Your task to perform on an android device: change the clock display to analog Image 0: 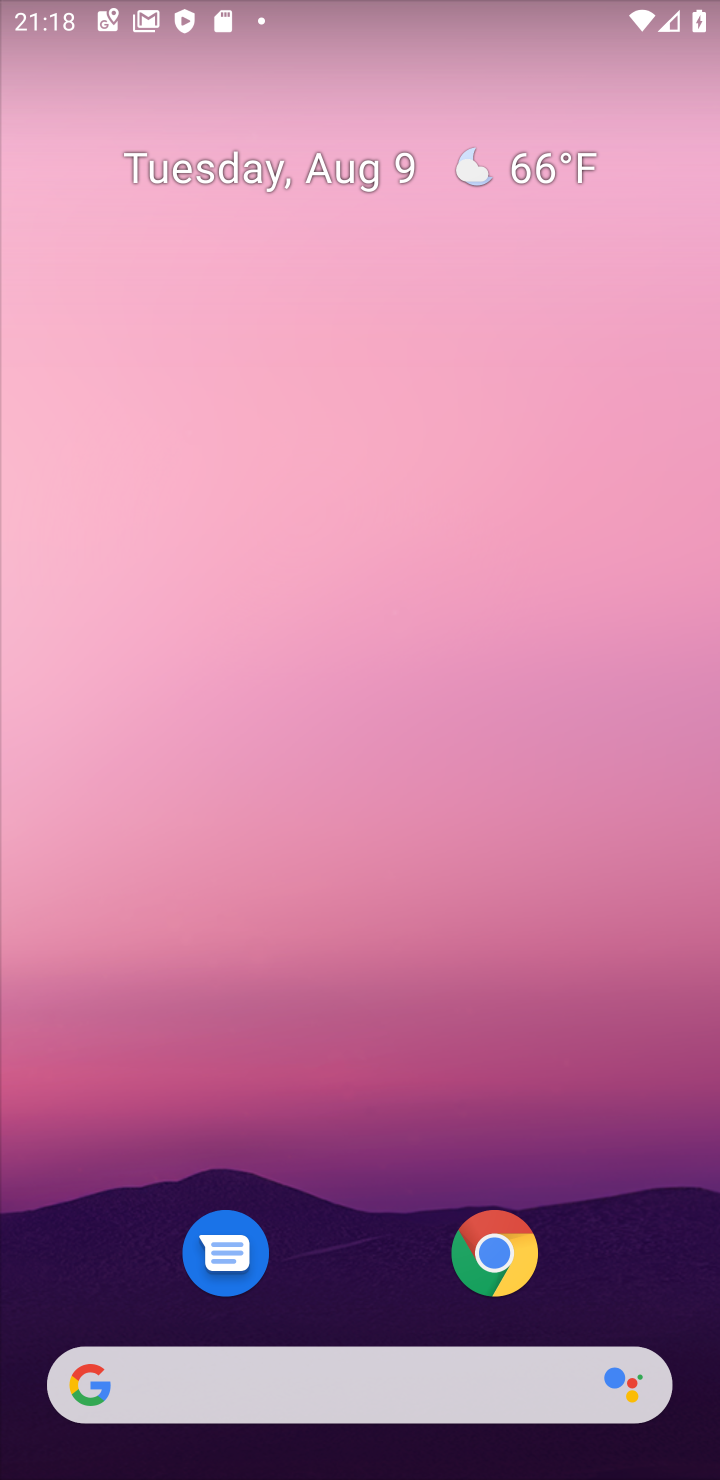
Step 0: drag from (322, 1166) to (235, 134)
Your task to perform on an android device: change the clock display to analog Image 1: 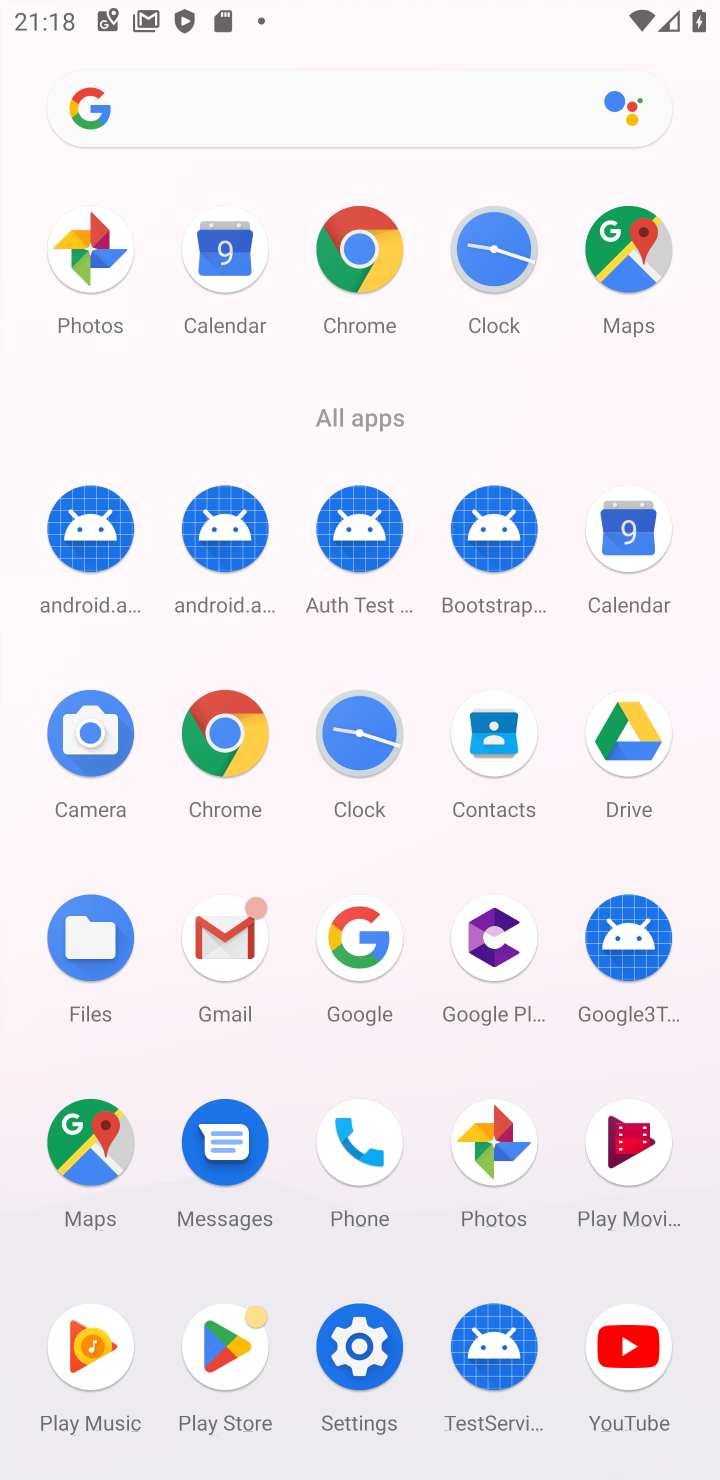
Step 1: click (361, 747)
Your task to perform on an android device: change the clock display to analog Image 2: 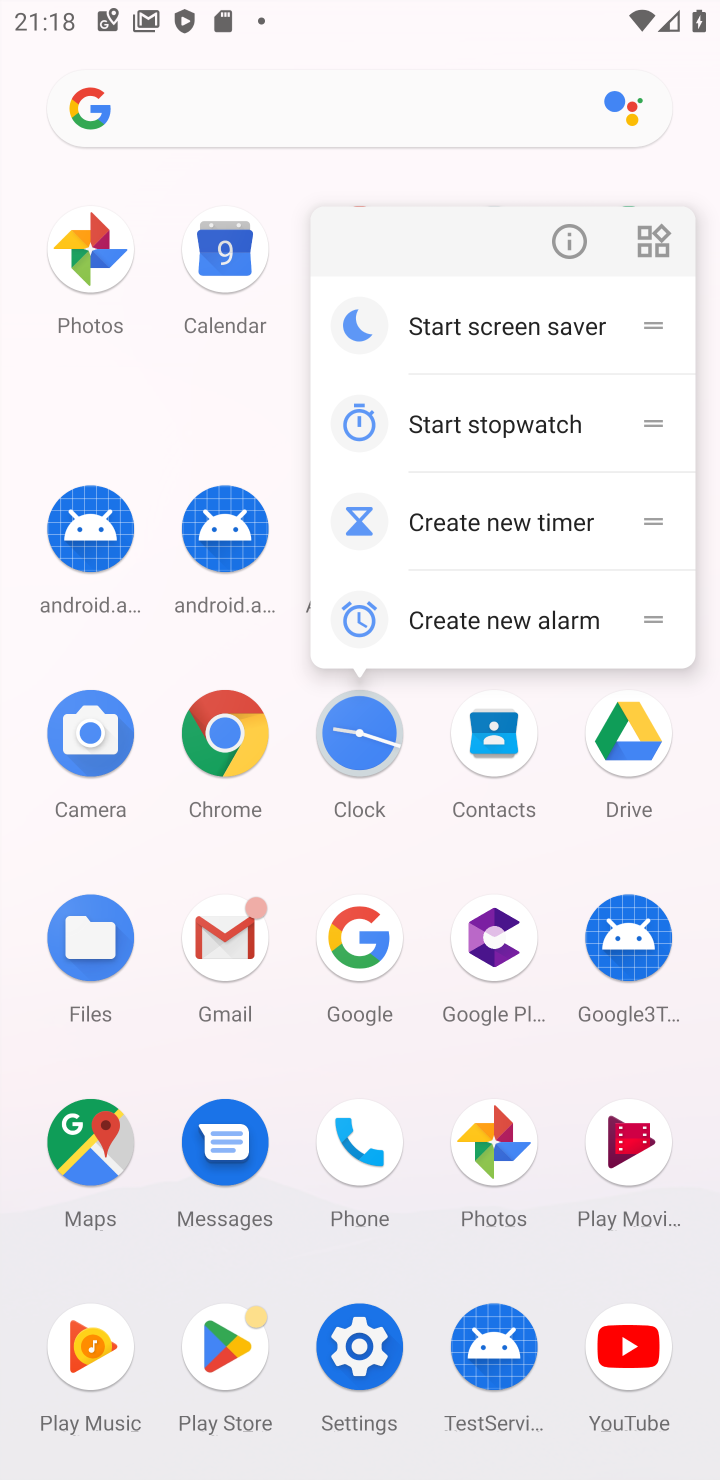
Step 2: click (361, 747)
Your task to perform on an android device: change the clock display to analog Image 3: 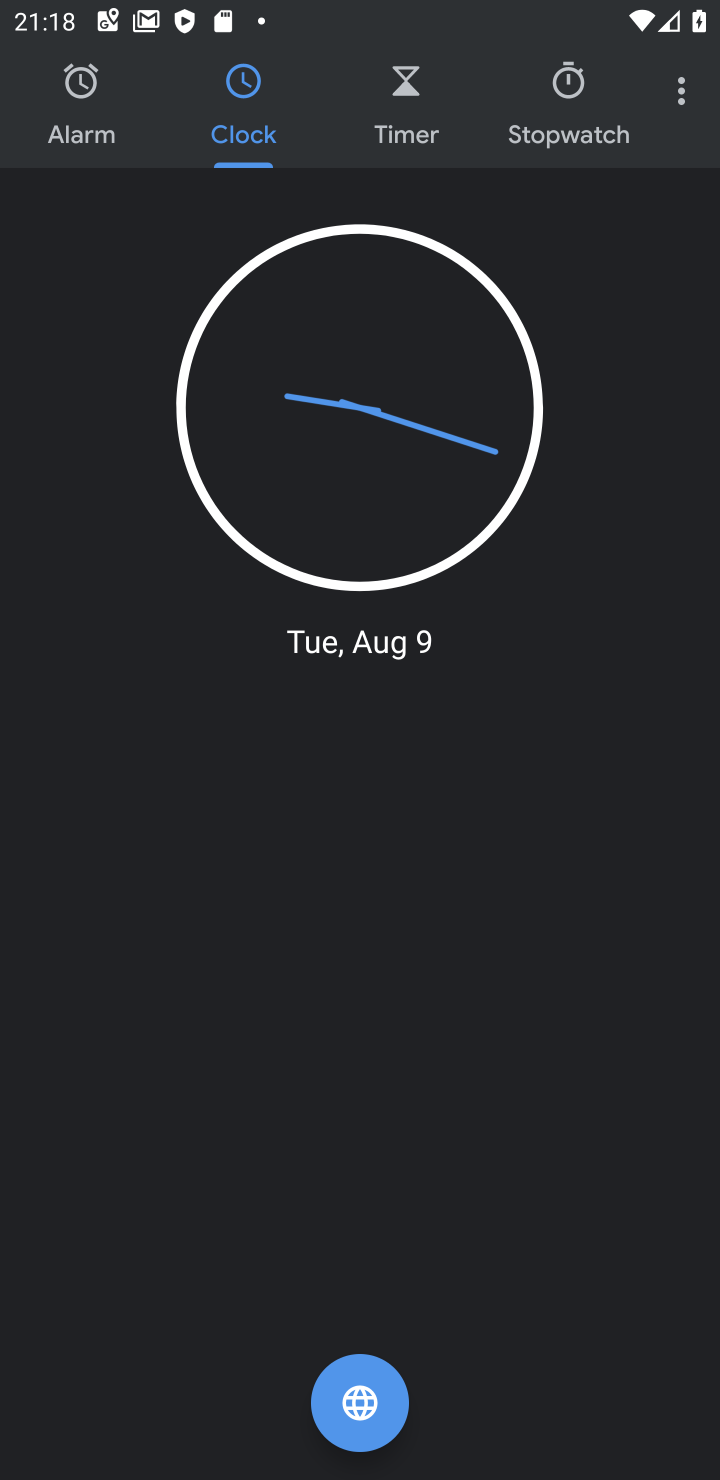
Step 3: click (695, 85)
Your task to perform on an android device: change the clock display to analog Image 4: 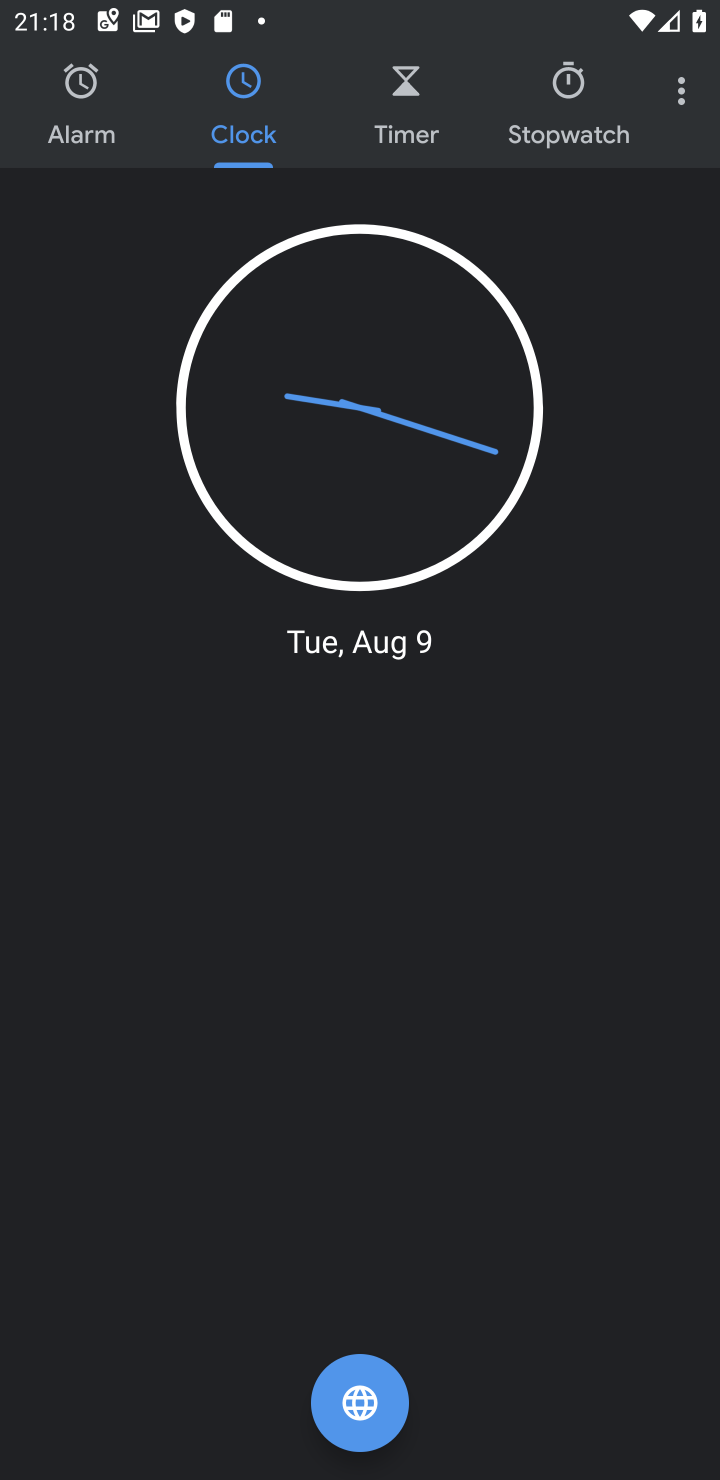
Step 4: click (675, 102)
Your task to perform on an android device: change the clock display to analog Image 5: 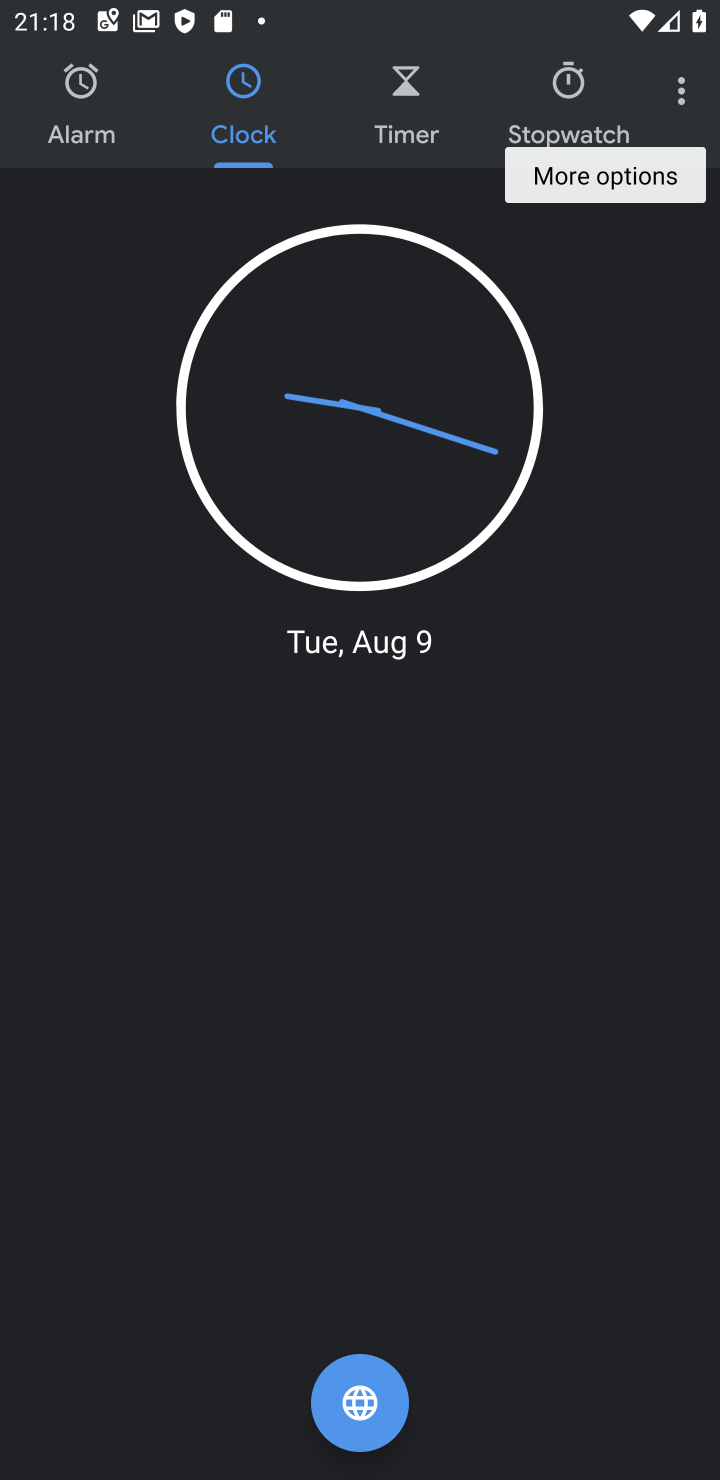
Step 5: click (675, 102)
Your task to perform on an android device: change the clock display to analog Image 6: 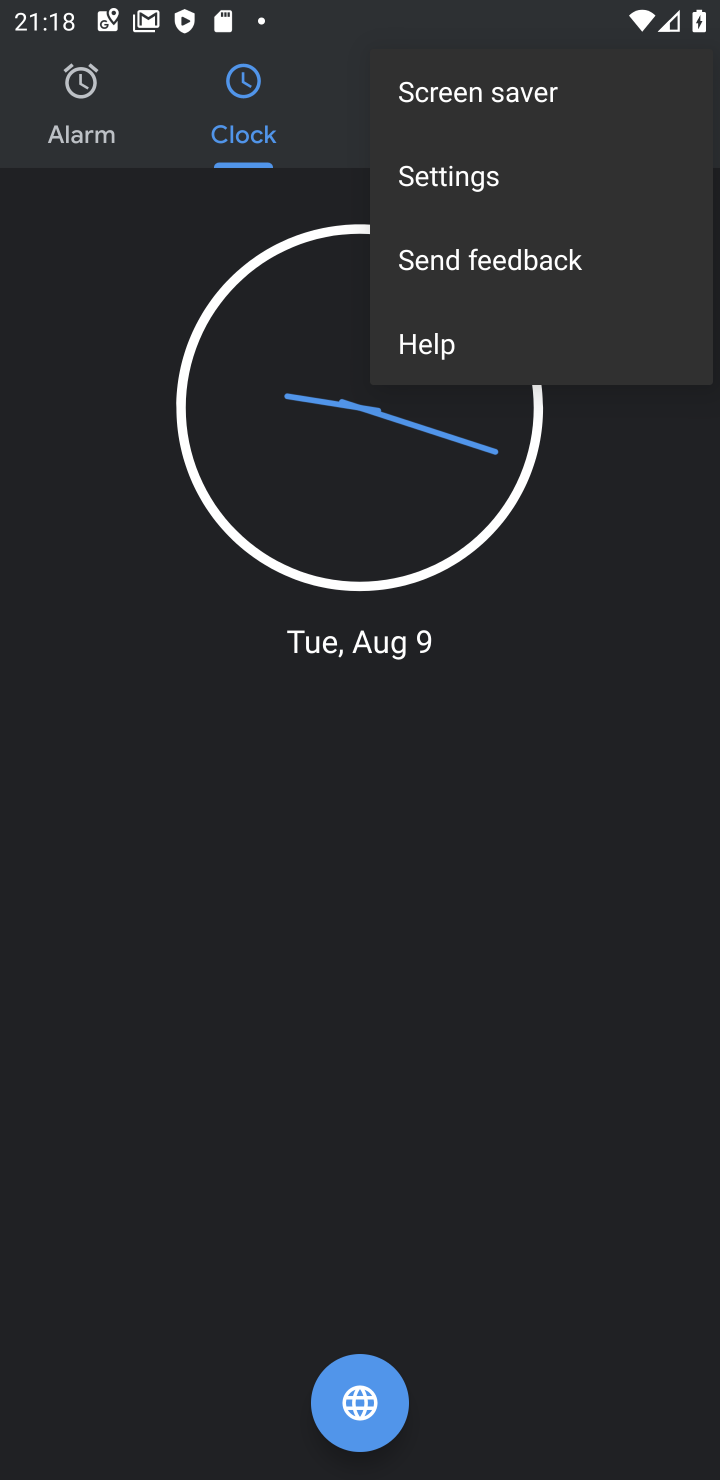
Step 6: click (487, 180)
Your task to perform on an android device: change the clock display to analog Image 7: 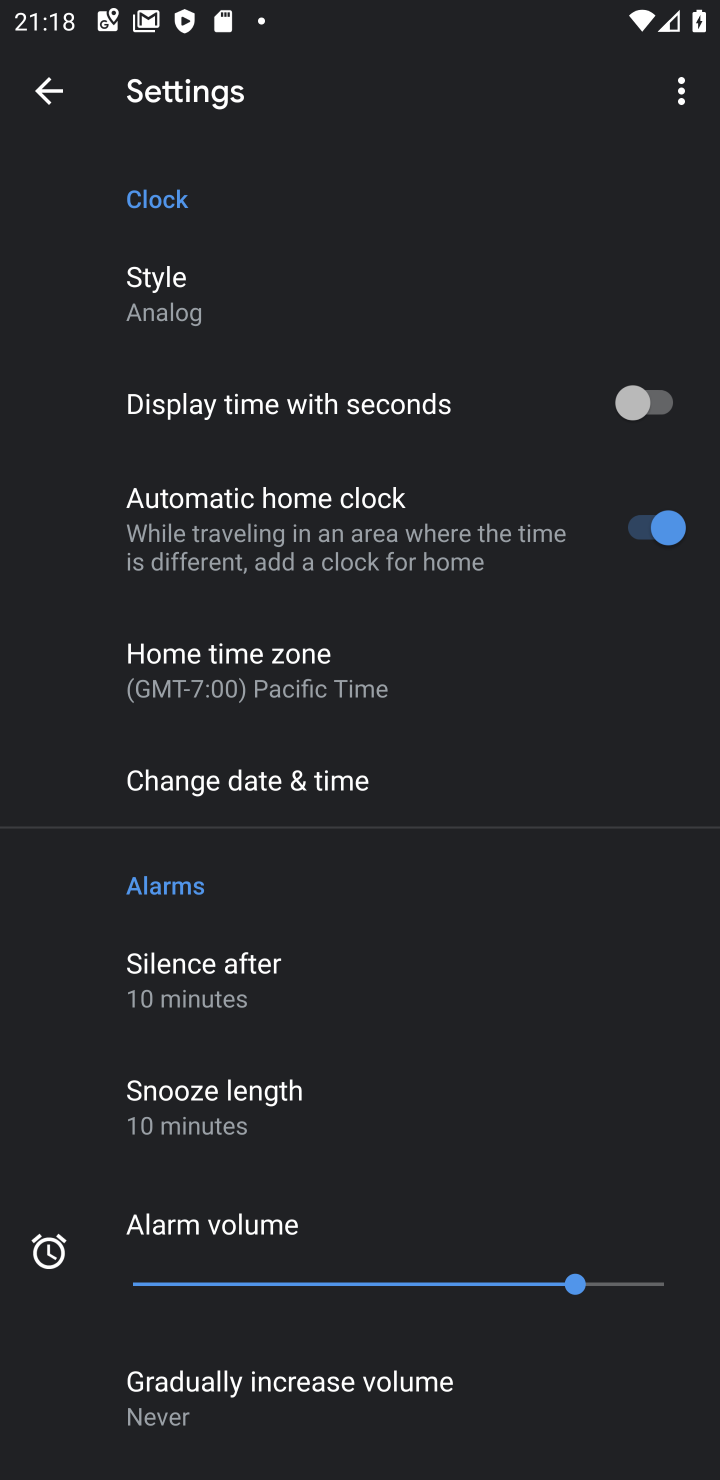
Step 7: click (166, 321)
Your task to perform on an android device: change the clock display to analog Image 8: 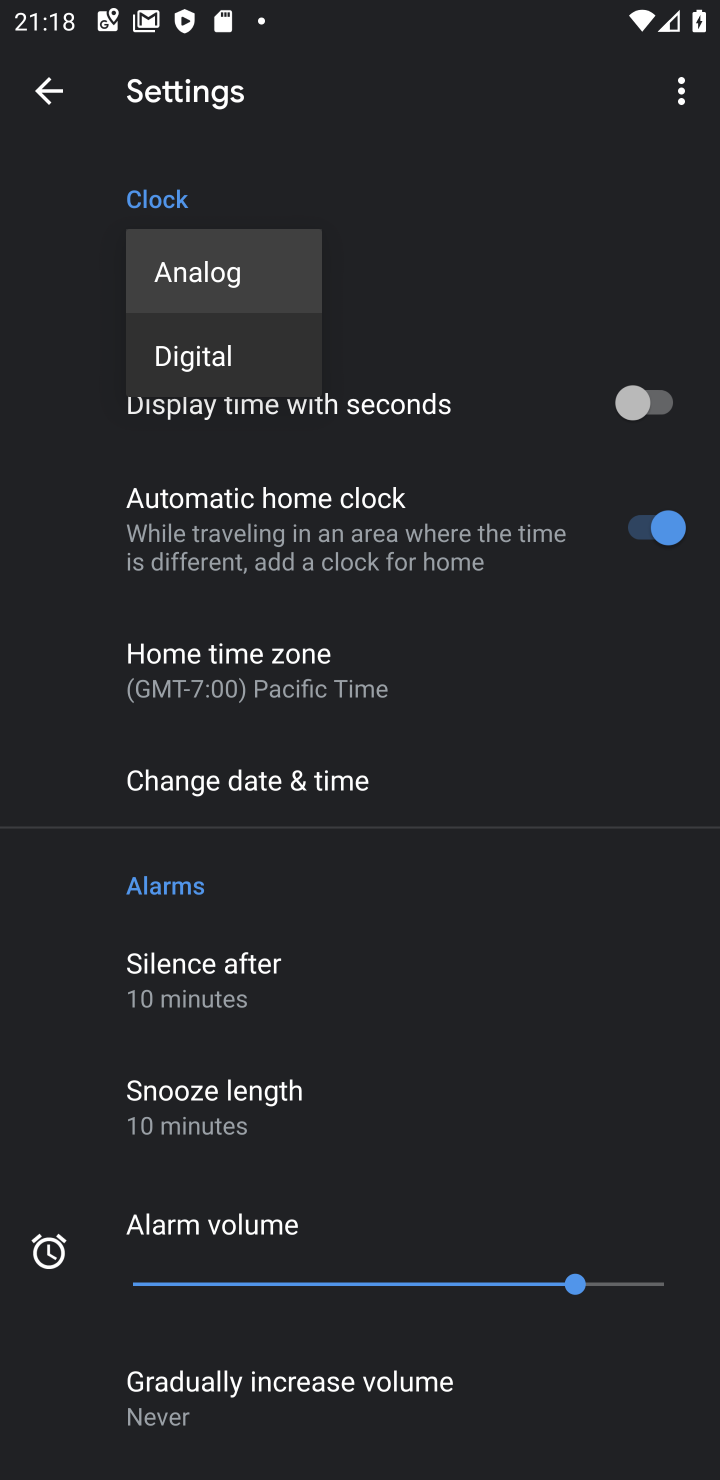
Step 8: task complete